Your task to perform on an android device: turn on javascript in the chrome app Image 0: 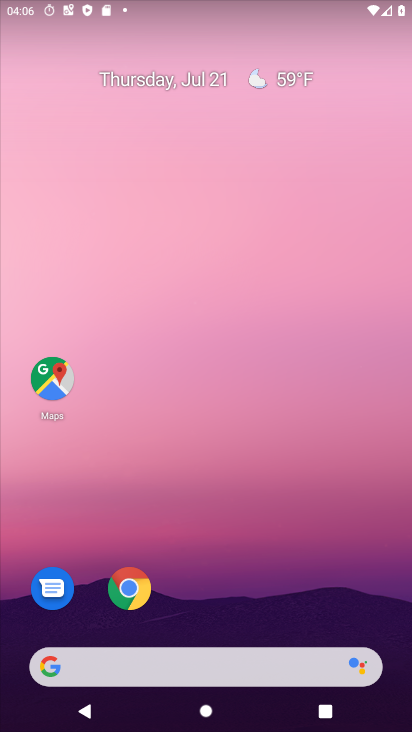
Step 0: drag from (206, 596) to (205, 235)
Your task to perform on an android device: turn on javascript in the chrome app Image 1: 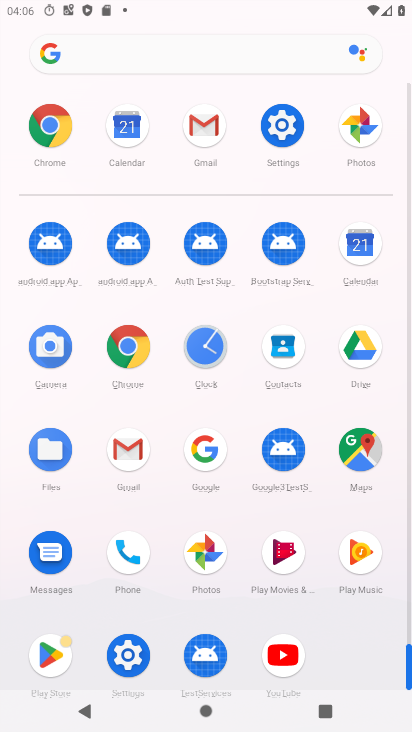
Step 1: click (128, 364)
Your task to perform on an android device: turn on javascript in the chrome app Image 2: 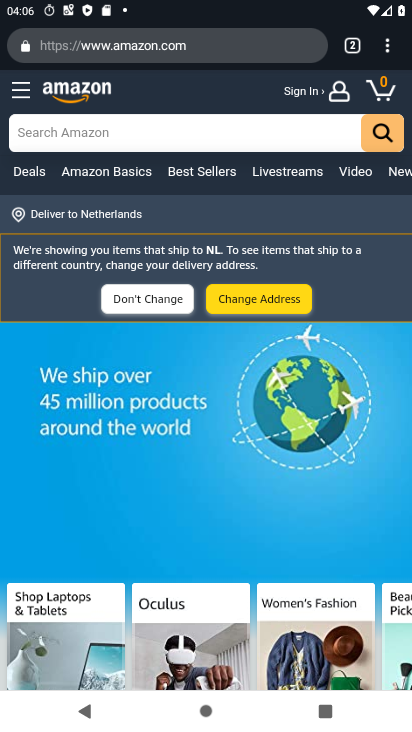
Step 2: click (387, 47)
Your task to perform on an android device: turn on javascript in the chrome app Image 3: 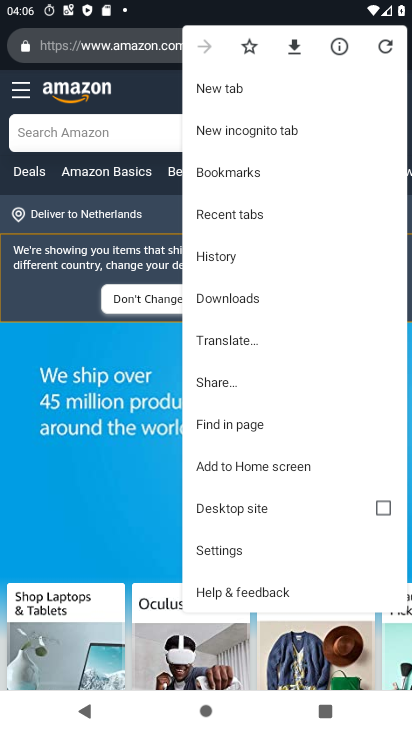
Step 3: click (225, 542)
Your task to perform on an android device: turn on javascript in the chrome app Image 4: 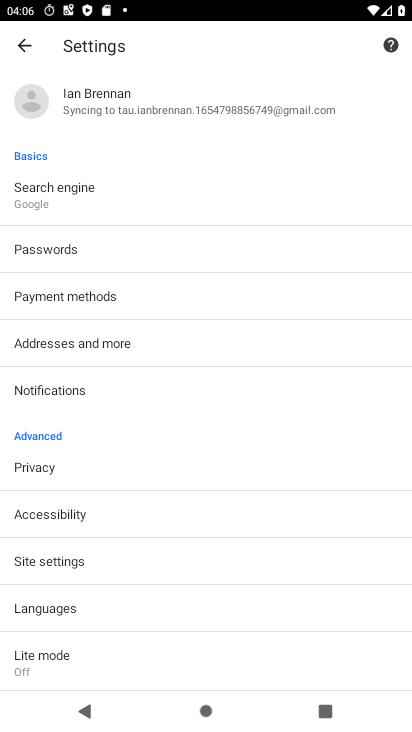
Step 4: drag from (100, 616) to (121, 378)
Your task to perform on an android device: turn on javascript in the chrome app Image 5: 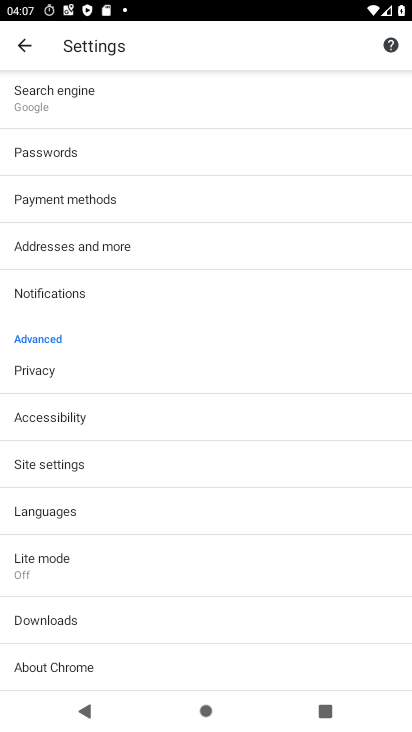
Step 5: click (63, 460)
Your task to perform on an android device: turn on javascript in the chrome app Image 6: 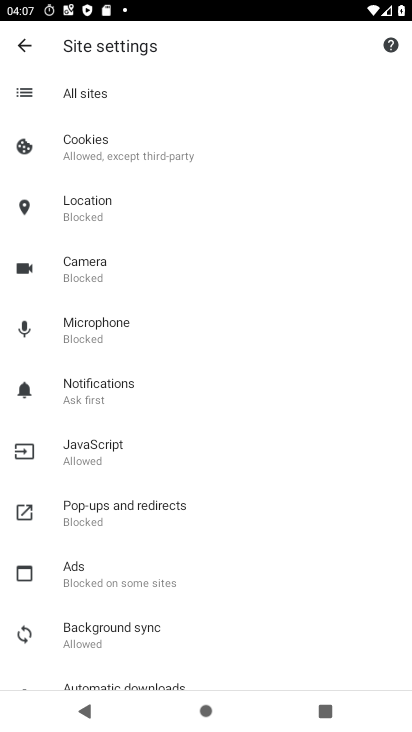
Step 6: click (109, 455)
Your task to perform on an android device: turn on javascript in the chrome app Image 7: 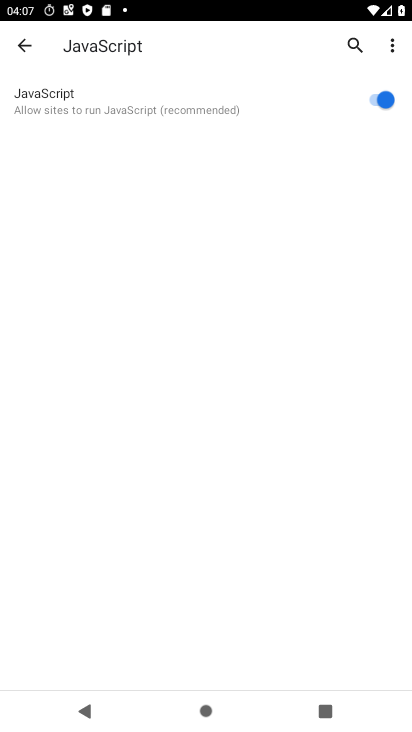
Step 7: task complete